Your task to perform on an android device: Add logitech g933 to the cart on newegg.com Image 0: 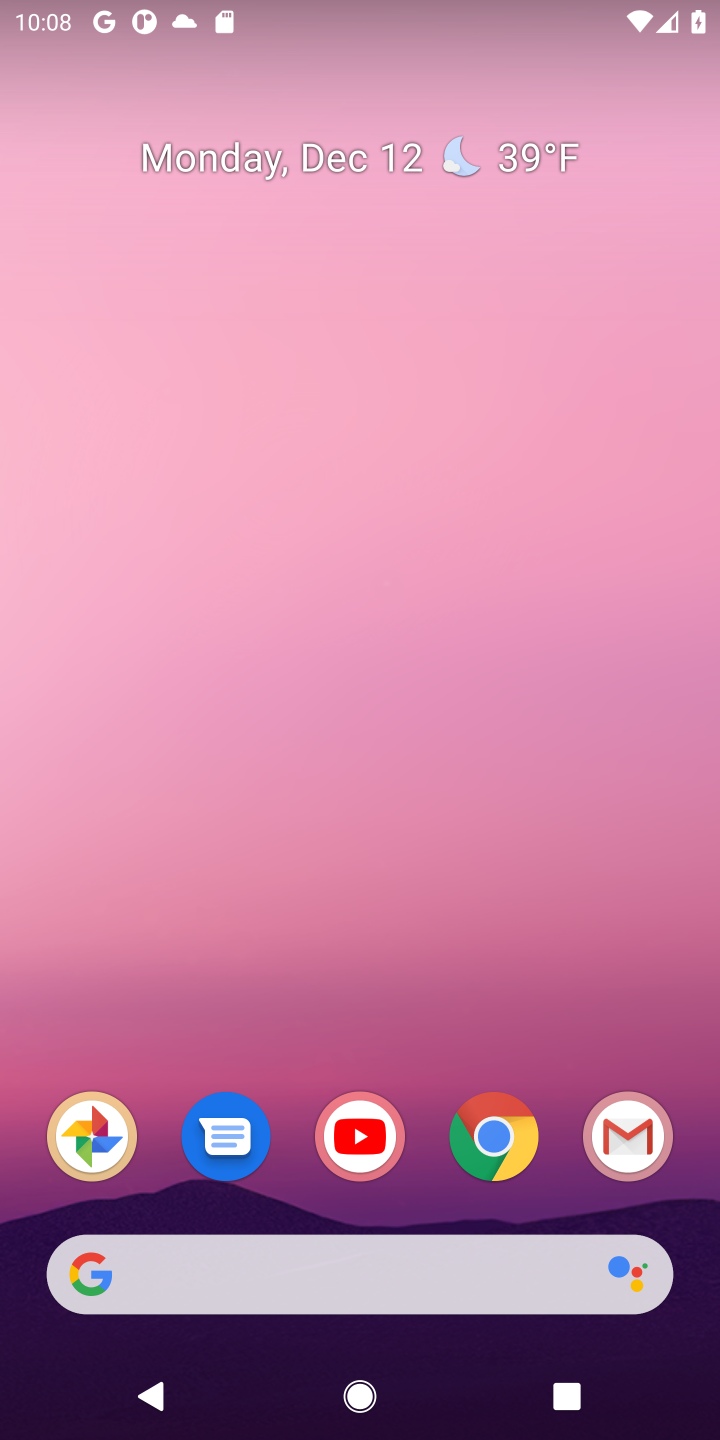
Step 0: click (489, 1153)
Your task to perform on an android device: Add logitech g933 to the cart on newegg.com Image 1: 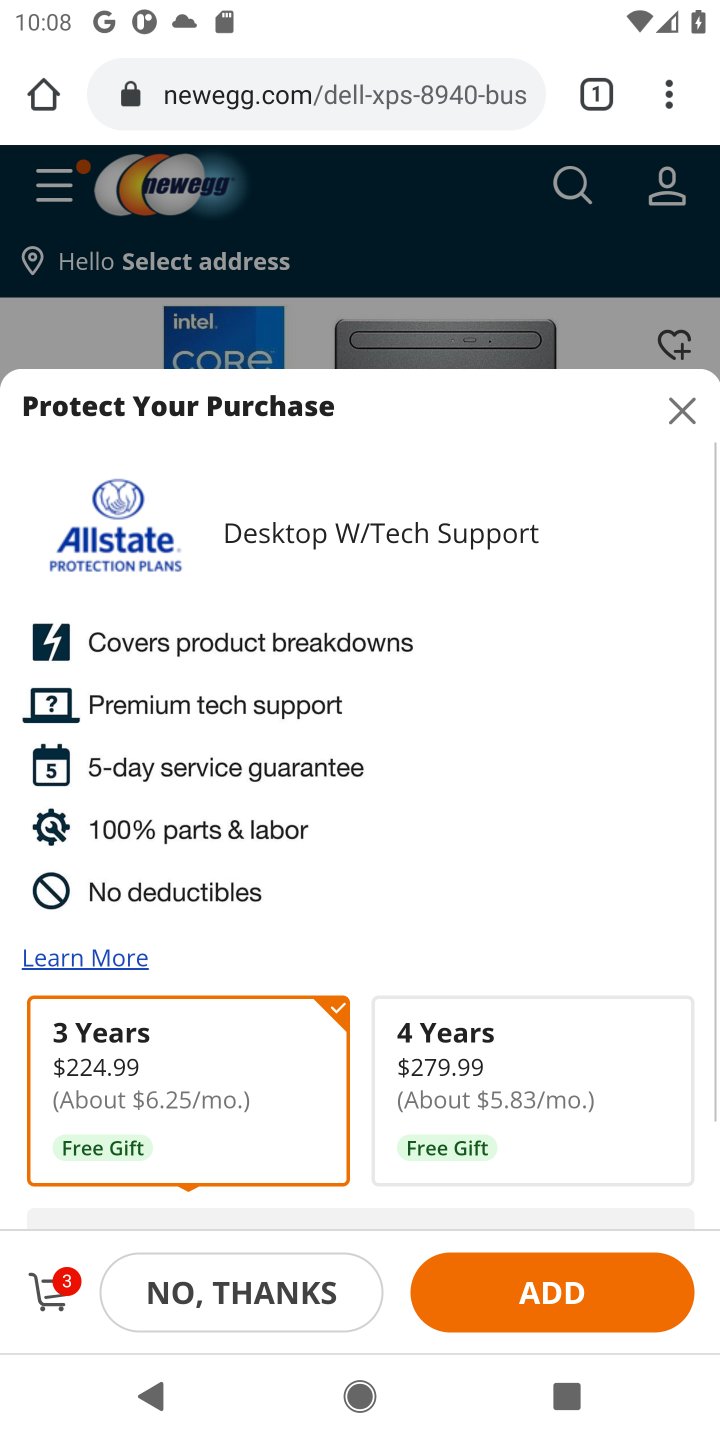
Step 1: click (687, 425)
Your task to perform on an android device: Add logitech g933 to the cart on newegg.com Image 2: 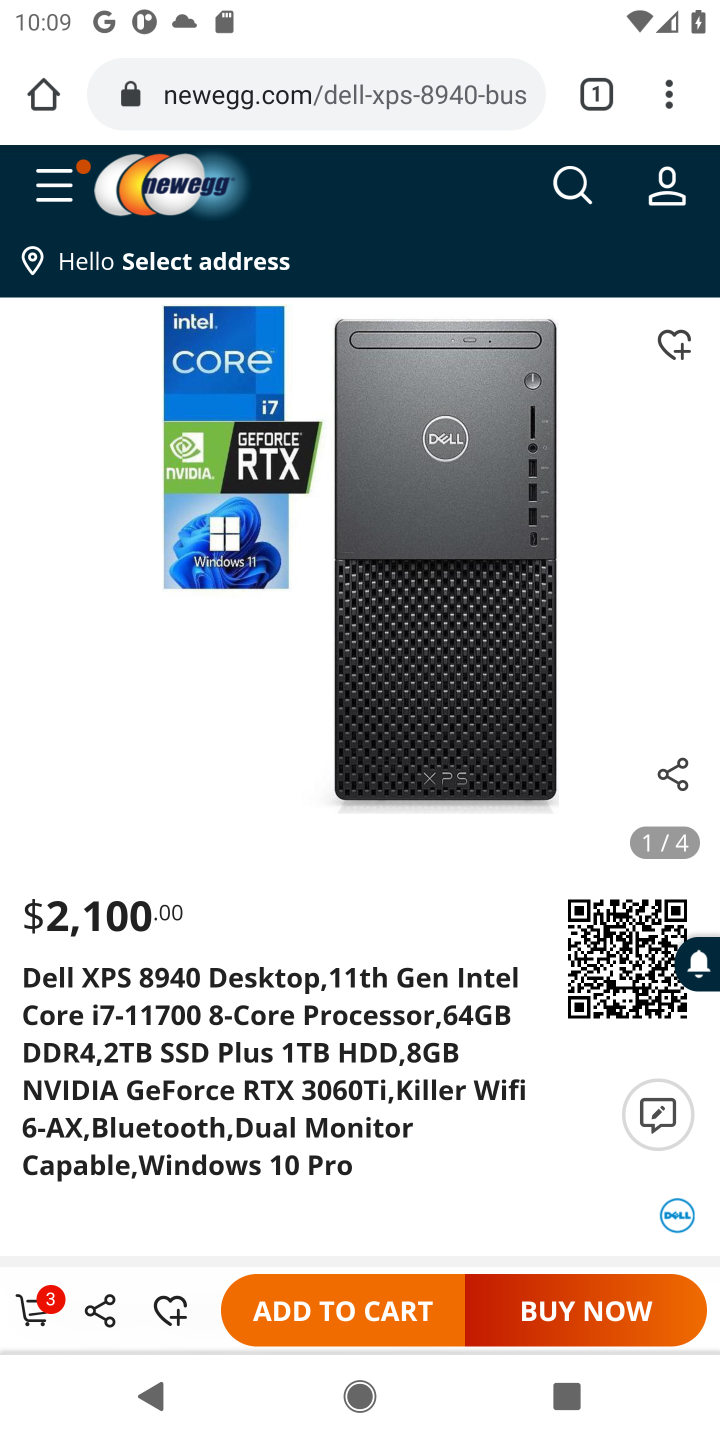
Step 2: click (585, 199)
Your task to perform on an android device: Add logitech g933 to the cart on newegg.com Image 3: 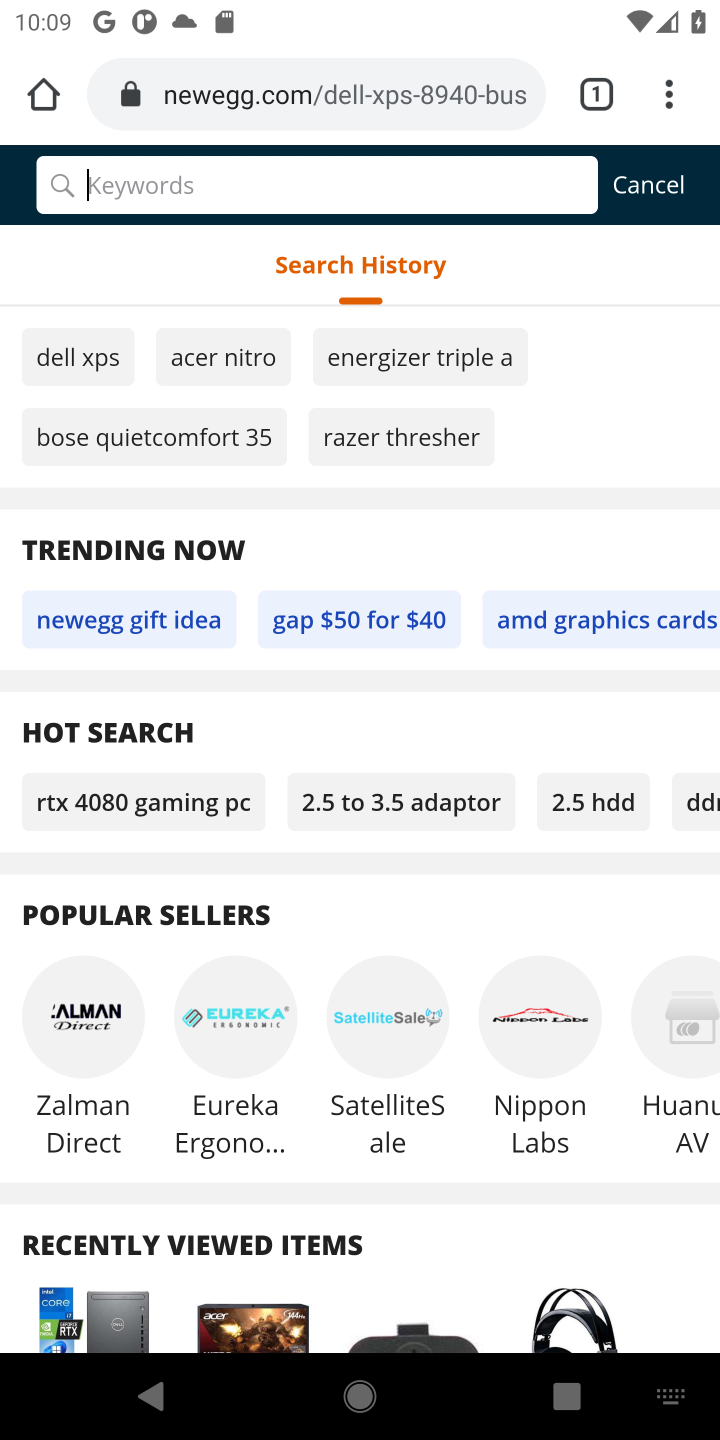
Step 3: type "logitech g933"
Your task to perform on an android device: Add logitech g933 to the cart on newegg.com Image 4: 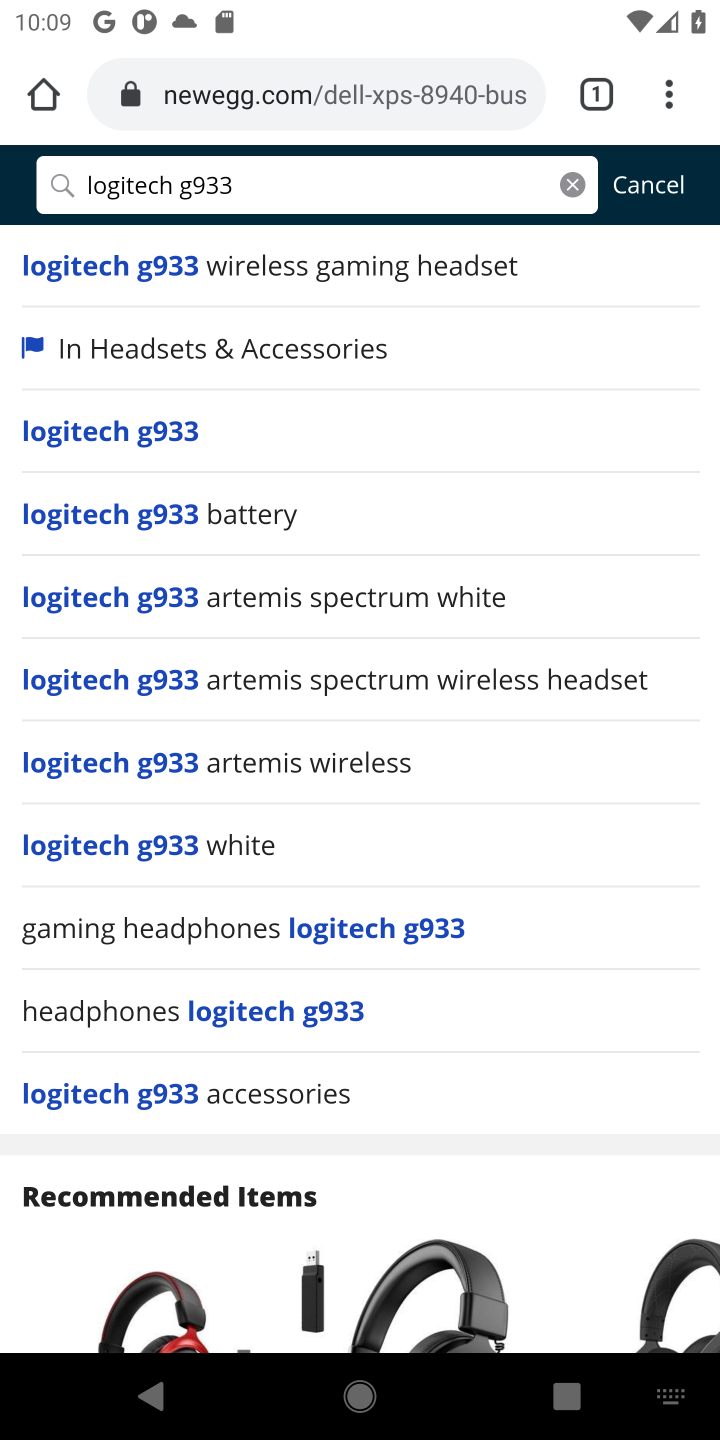
Step 4: click (143, 439)
Your task to perform on an android device: Add logitech g933 to the cart on newegg.com Image 5: 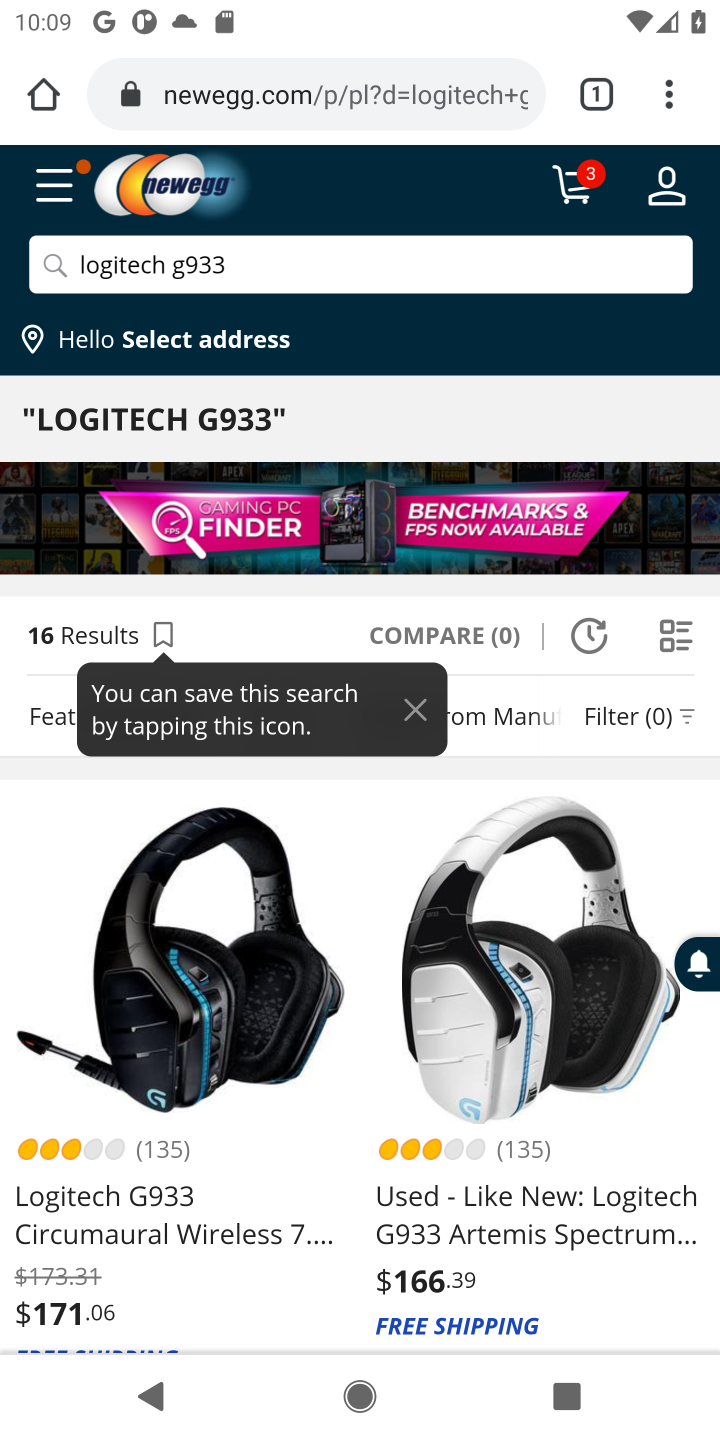
Step 5: drag from (320, 1009) to (265, 555)
Your task to perform on an android device: Add logitech g933 to the cart on newegg.com Image 6: 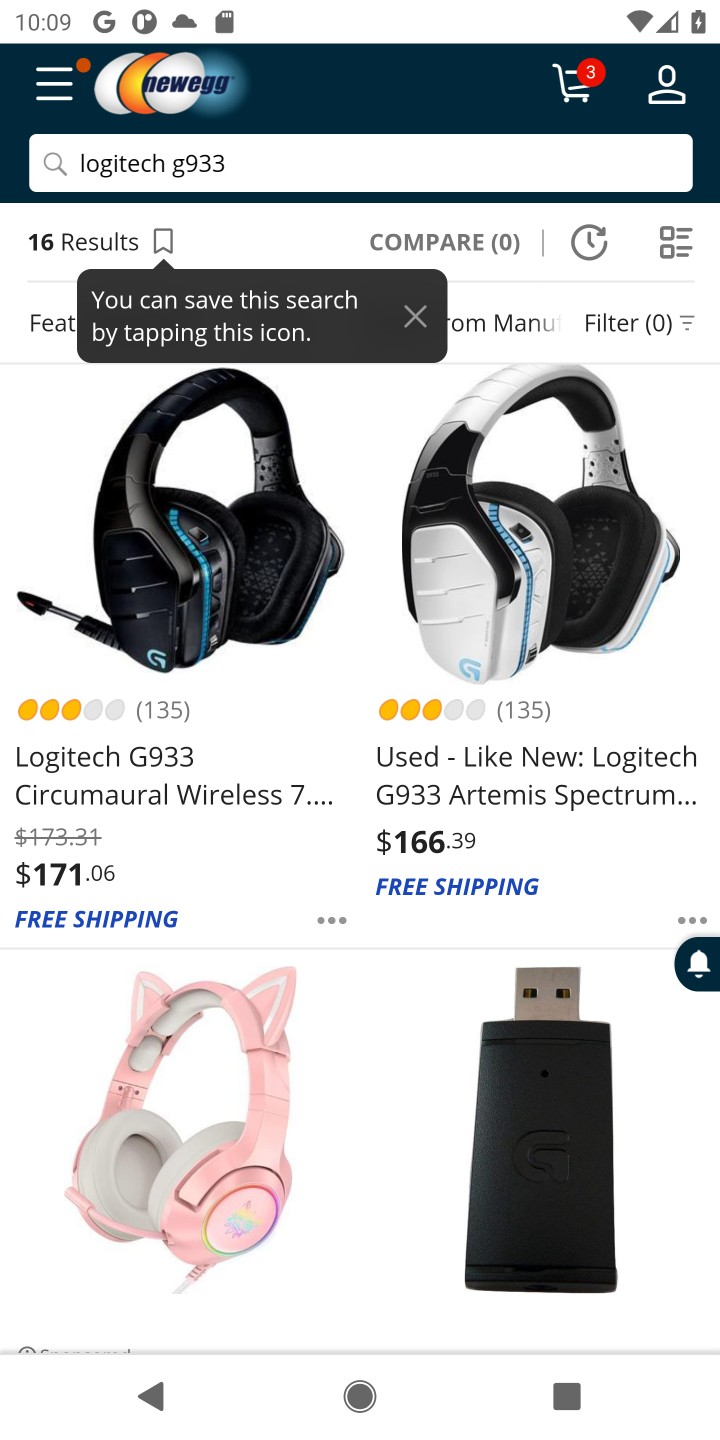
Step 6: click (122, 800)
Your task to perform on an android device: Add logitech g933 to the cart on newegg.com Image 7: 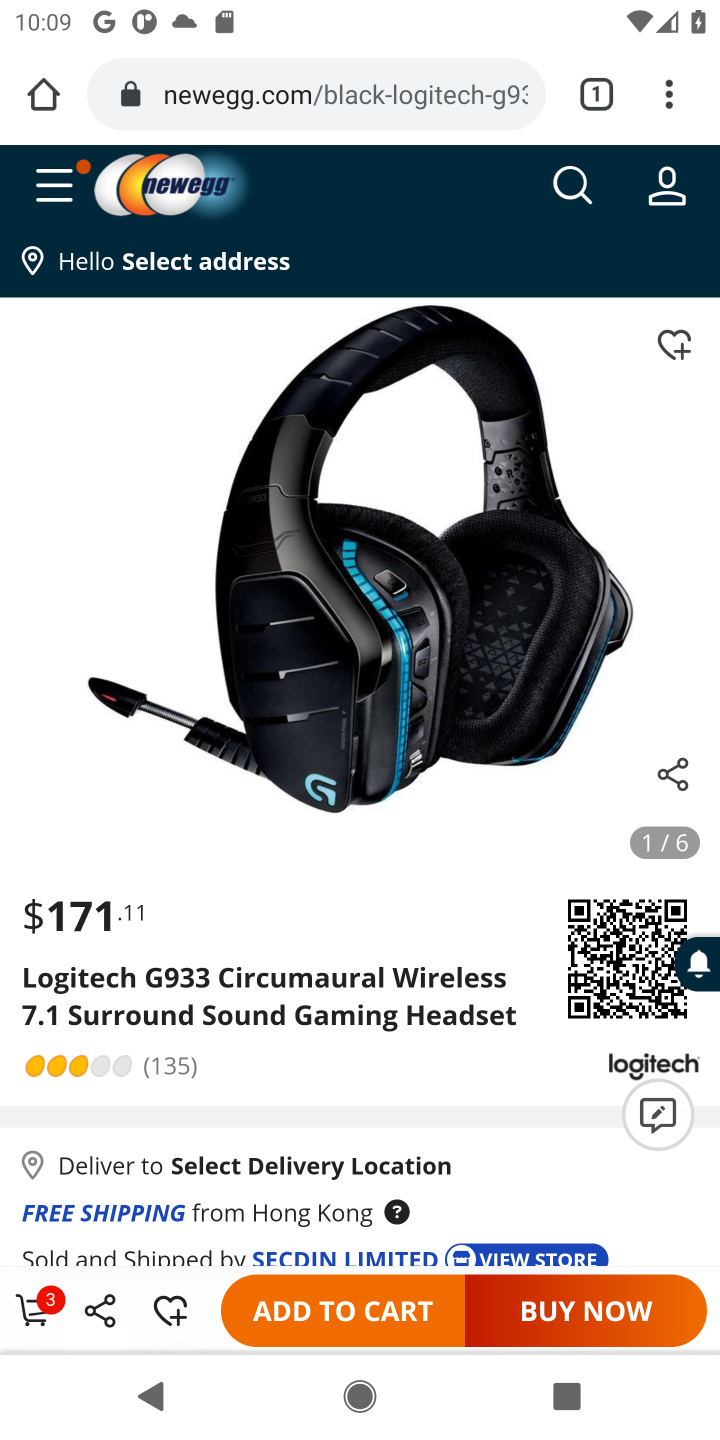
Step 7: click (332, 1315)
Your task to perform on an android device: Add logitech g933 to the cart on newegg.com Image 8: 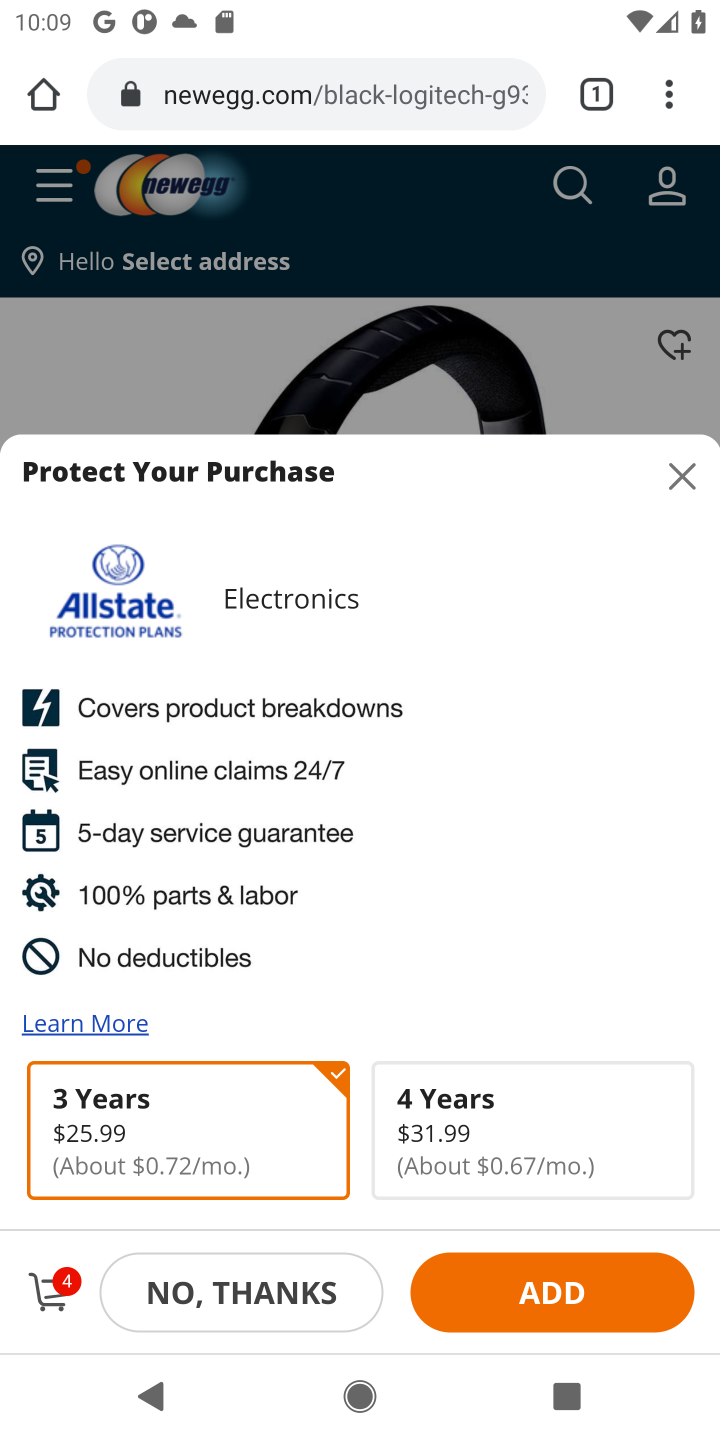
Step 8: task complete